Your task to perform on an android device: empty trash in google photos Image 0: 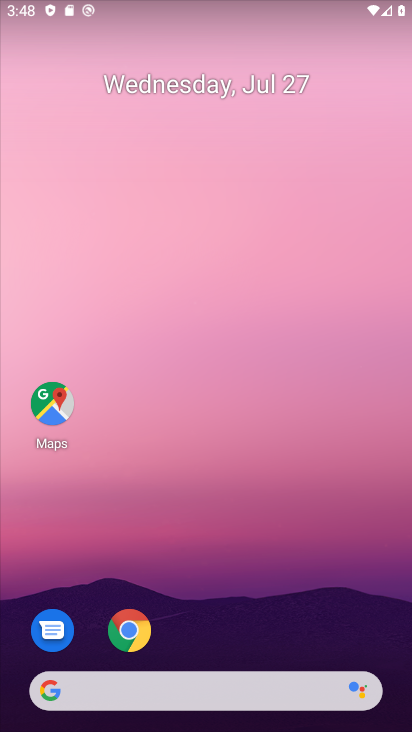
Step 0: drag from (202, 637) to (215, 45)
Your task to perform on an android device: empty trash in google photos Image 1: 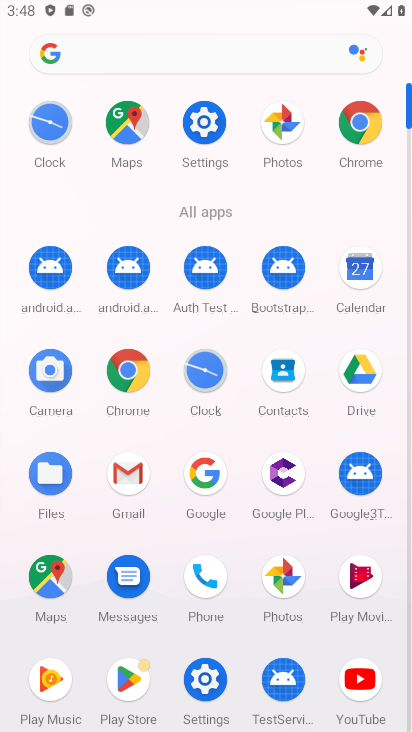
Step 1: click (279, 567)
Your task to perform on an android device: empty trash in google photos Image 2: 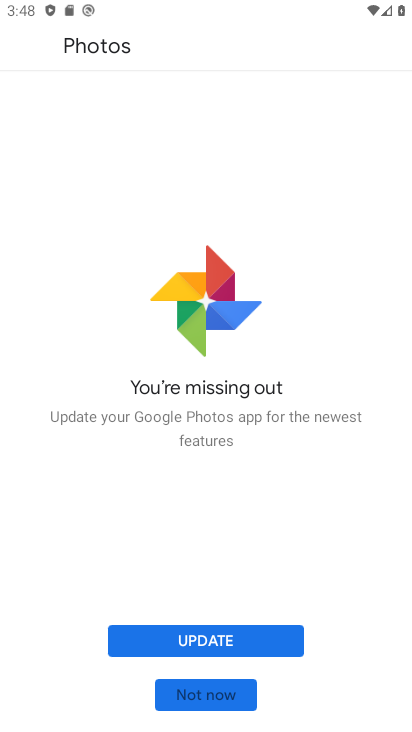
Step 2: click (202, 691)
Your task to perform on an android device: empty trash in google photos Image 3: 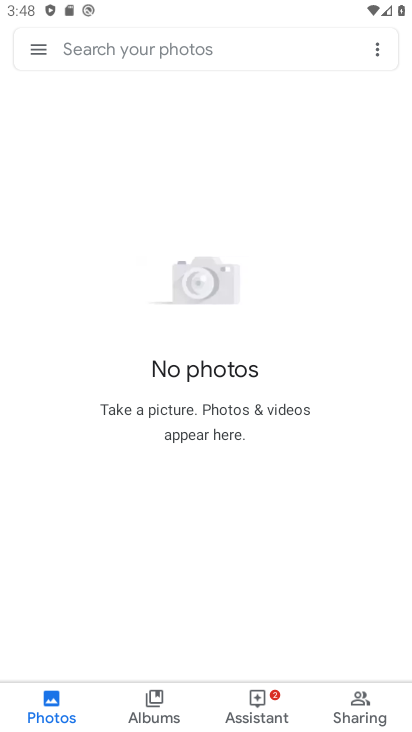
Step 3: click (41, 51)
Your task to perform on an android device: empty trash in google photos Image 4: 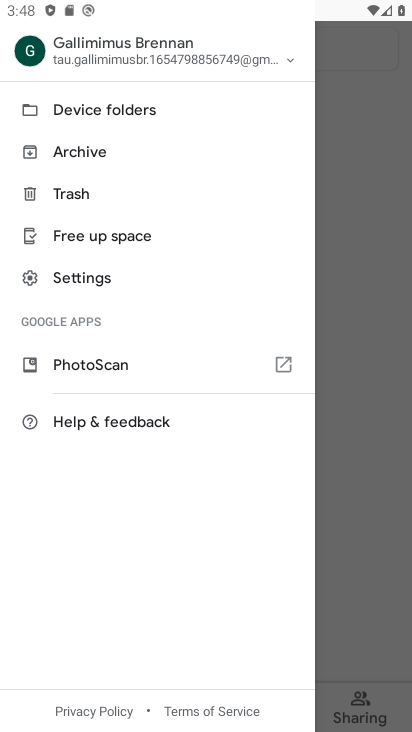
Step 4: click (71, 189)
Your task to perform on an android device: empty trash in google photos Image 5: 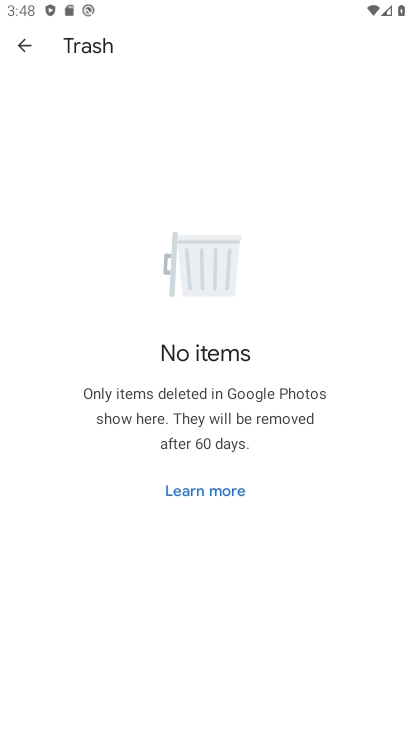
Step 5: task complete